Your task to perform on an android device: see sites visited before in the chrome app Image 0: 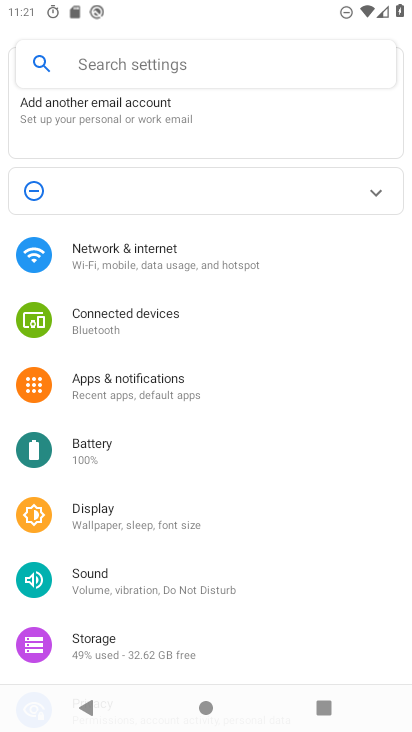
Step 0: press home button
Your task to perform on an android device: see sites visited before in the chrome app Image 1: 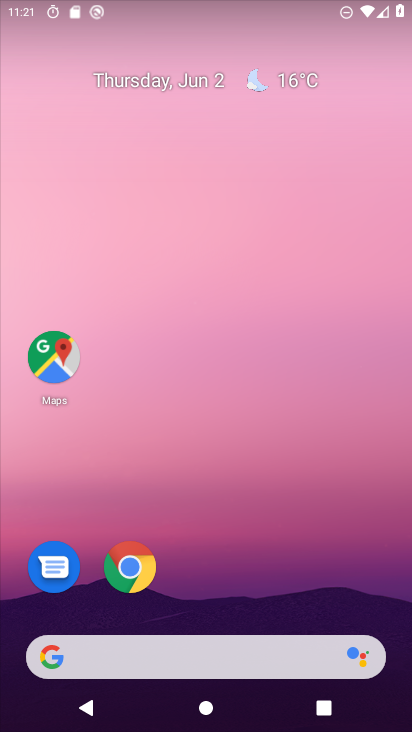
Step 1: click (129, 582)
Your task to perform on an android device: see sites visited before in the chrome app Image 2: 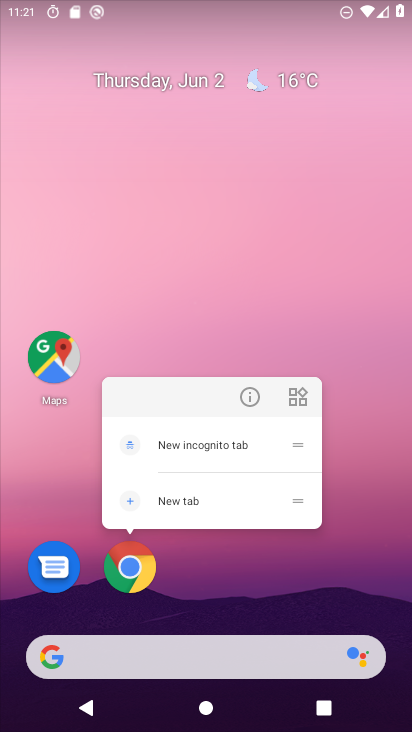
Step 2: click (129, 572)
Your task to perform on an android device: see sites visited before in the chrome app Image 3: 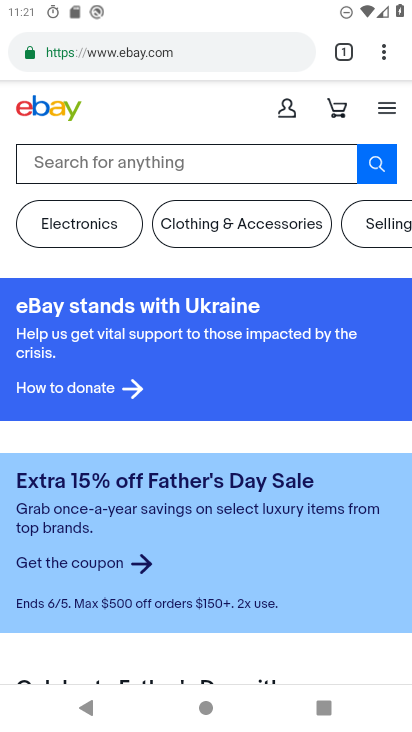
Step 3: click (380, 58)
Your task to perform on an android device: see sites visited before in the chrome app Image 4: 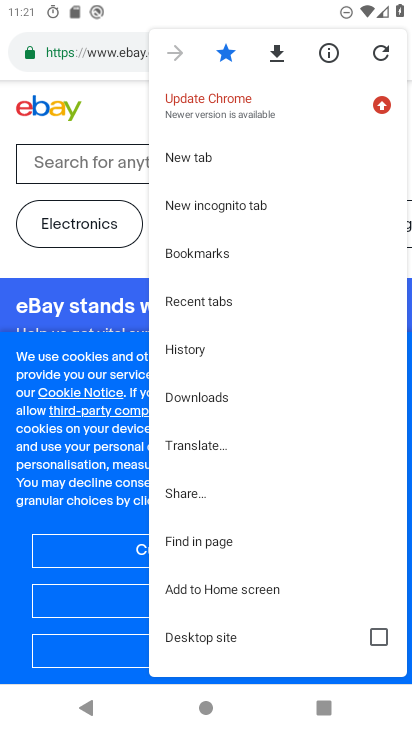
Step 4: click (205, 363)
Your task to perform on an android device: see sites visited before in the chrome app Image 5: 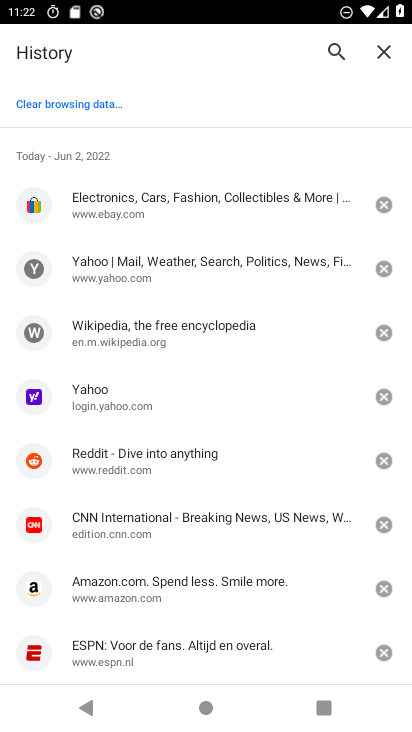
Step 5: task complete